Your task to perform on an android device: Is it going to rain tomorrow? Image 0: 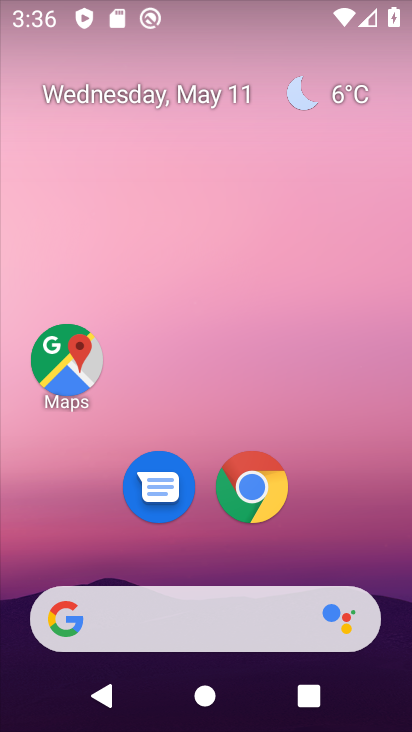
Step 0: drag from (306, 560) to (265, 235)
Your task to perform on an android device: Is it going to rain tomorrow? Image 1: 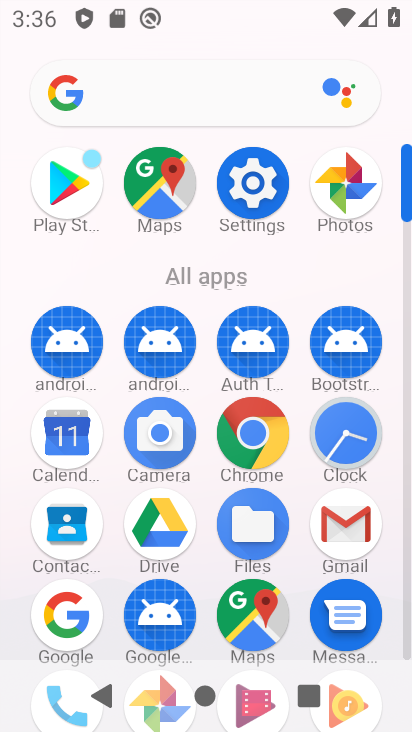
Step 1: click (71, 621)
Your task to perform on an android device: Is it going to rain tomorrow? Image 2: 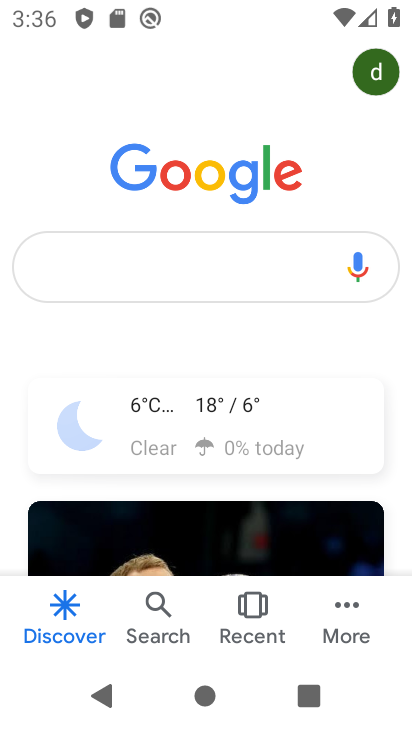
Step 2: click (245, 274)
Your task to perform on an android device: Is it going to rain tomorrow? Image 3: 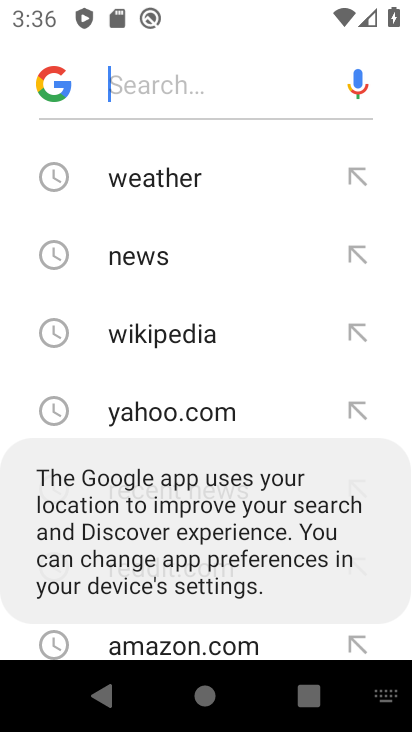
Step 3: click (167, 177)
Your task to perform on an android device: Is it going to rain tomorrow? Image 4: 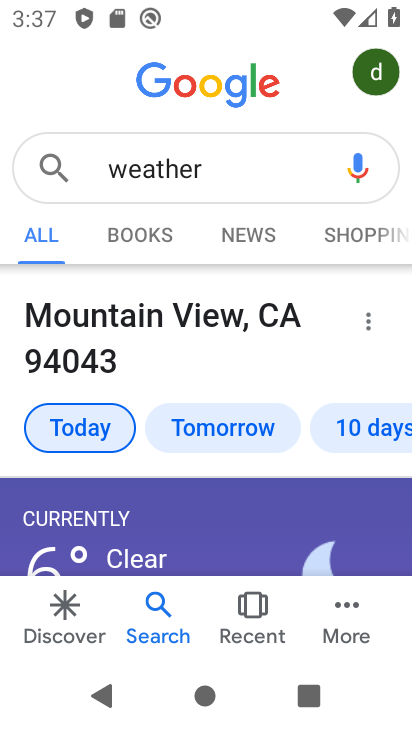
Step 4: click (219, 435)
Your task to perform on an android device: Is it going to rain tomorrow? Image 5: 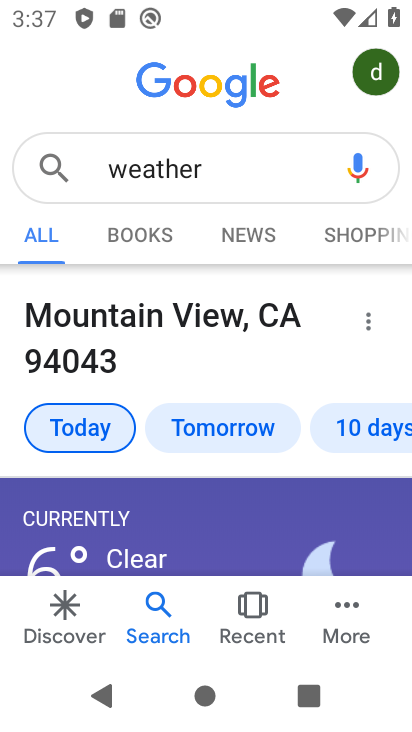
Step 5: click (222, 426)
Your task to perform on an android device: Is it going to rain tomorrow? Image 6: 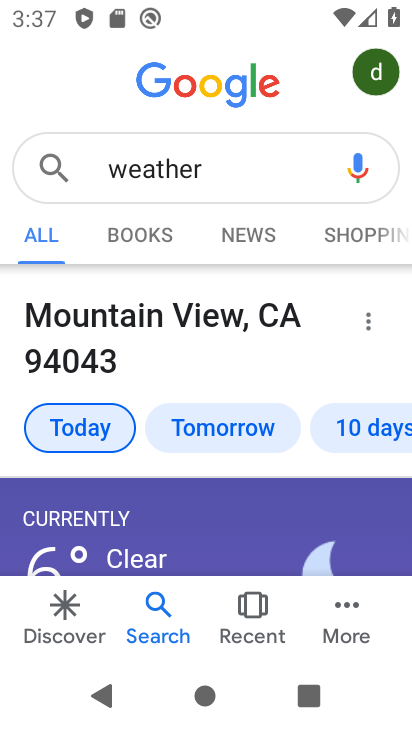
Step 6: click (229, 426)
Your task to perform on an android device: Is it going to rain tomorrow? Image 7: 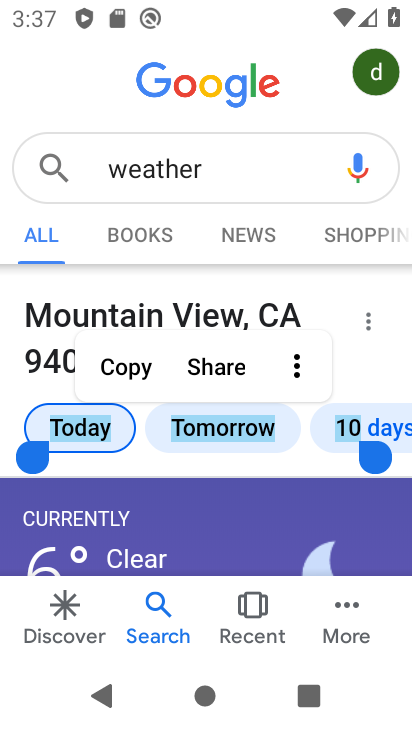
Step 7: click (265, 429)
Your task to perform on an android device: Is it going to rain tomorrow? Image 8: 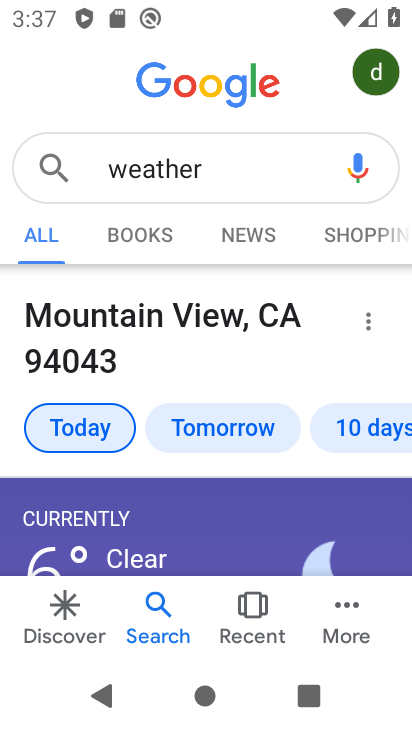
Step 8: click (276, 440)
Your task to perform on an android device: Is it going to rain tomorrow? Image 9: 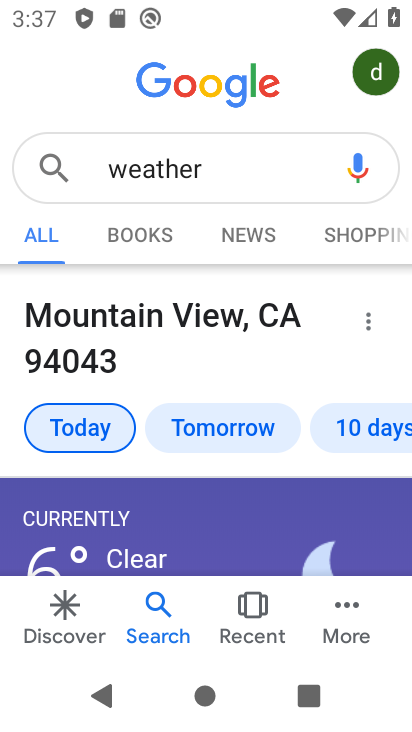
Step 9: task complete